Your task to perform on an android device: Add "razer blade" to the cart on bestbuy.com, then select checkout. Image 0: 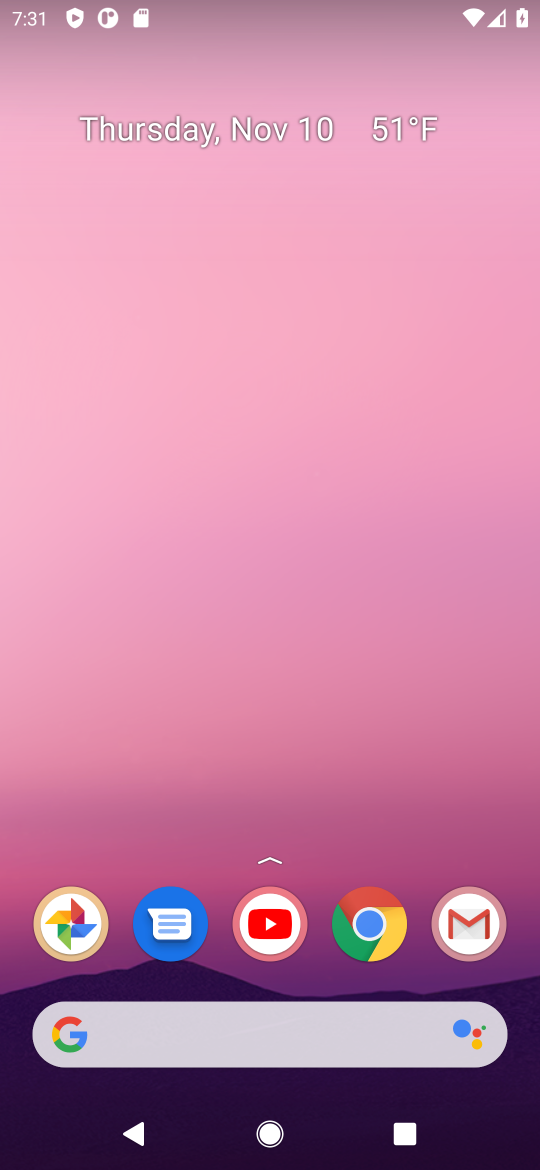
Step 0: click (363, 933)
Your task to perform on an android device: Add "razer blade" to the cart on bestbuy.com, then select checkout. Image 1: 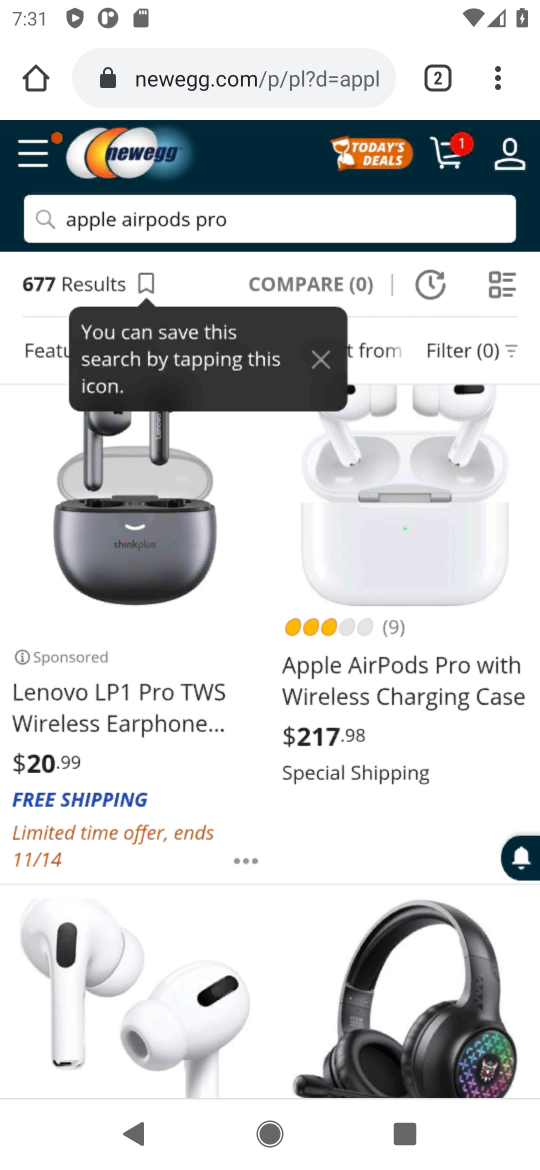
Step 1: click (246, 85)
Your task to perform on an android device: Add "razer blade" to the cart on bestbuy.com, then select checkout. Image 2: 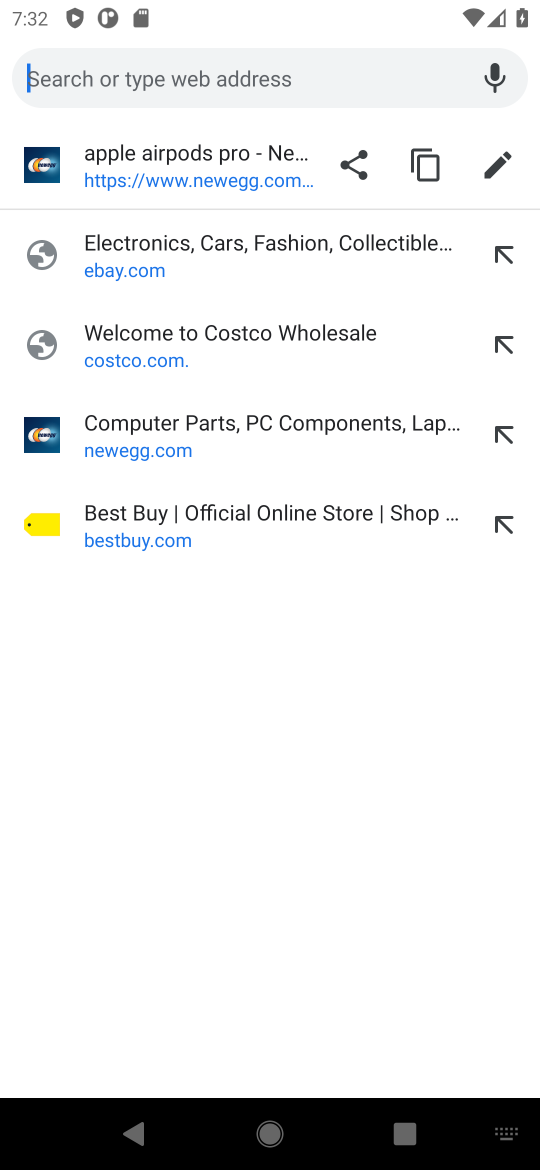
Step 2: click (111, 517)
Your task to perform on an android device: Add "razer blade" to the cart on bestbuy.com, then select checkout. Image 3: 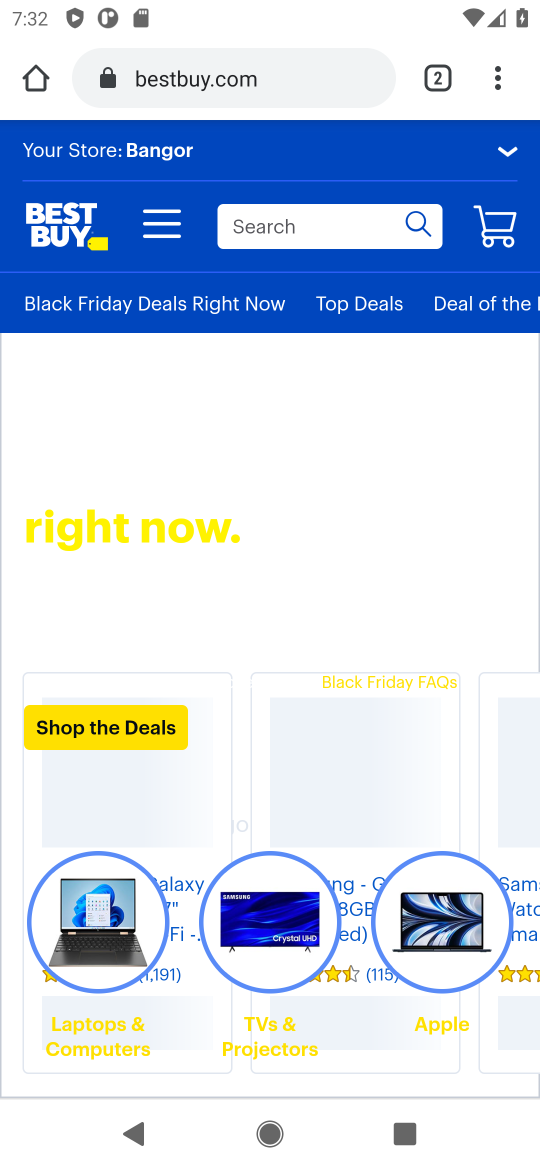
Step 3: click (267, 216)
Your task to perform on an android device: Add "razer blade" to the cart on bestbuy.com, then select checkout. Image 4: 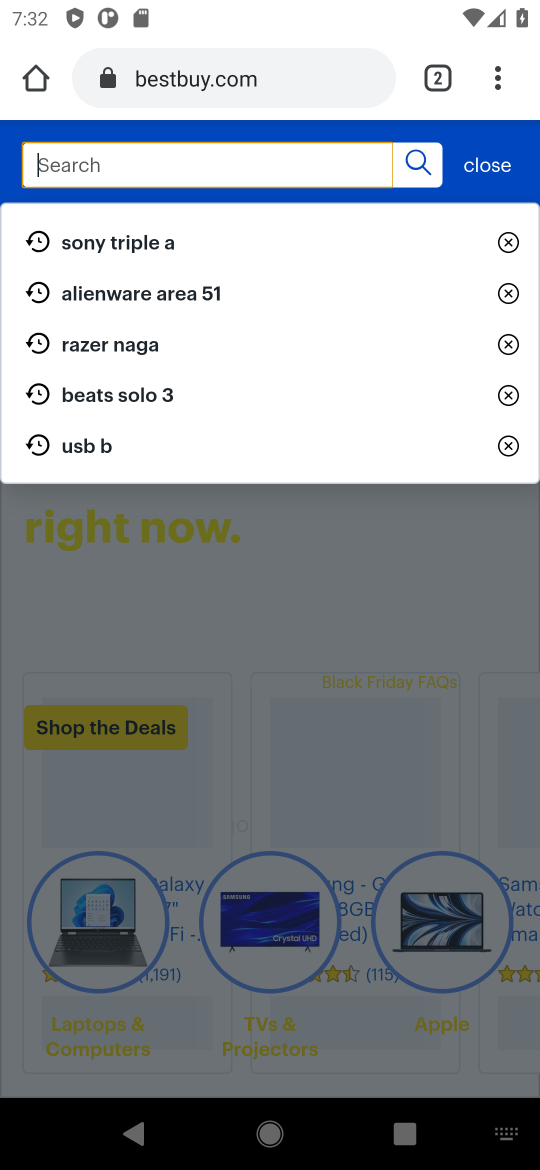
Step 4: type "razer blade"
Your task to perform on an android device: Add "razer blade" to the cart on bestbuy.com, then select checkout. Image 5: 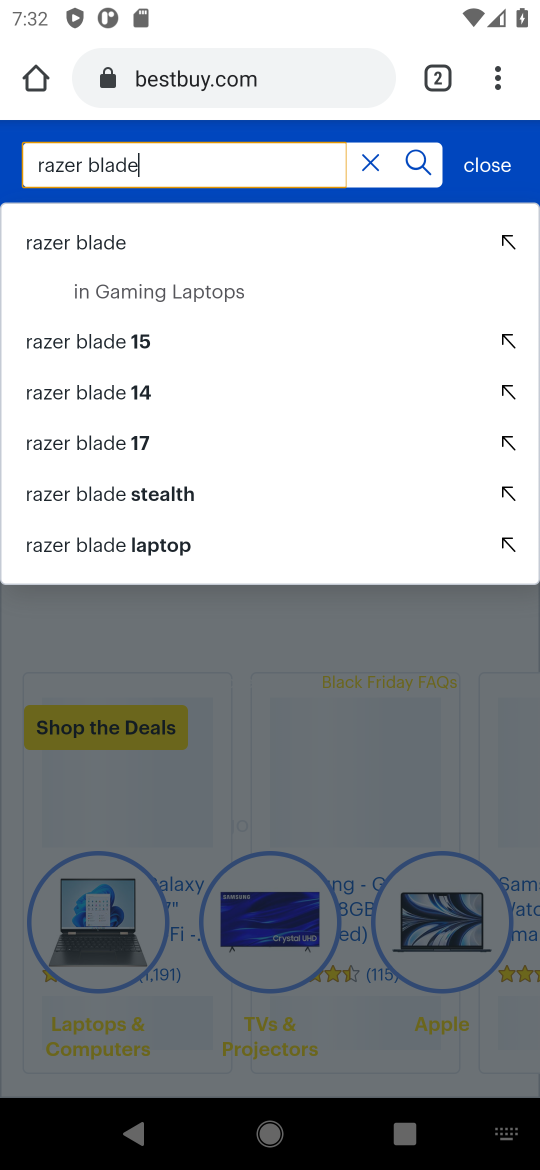
Step 5: click (53, 258)
Your task to perform on an android device: Add "razer blade" to the cart on bestbuy.com, then select checkout. Image 6: 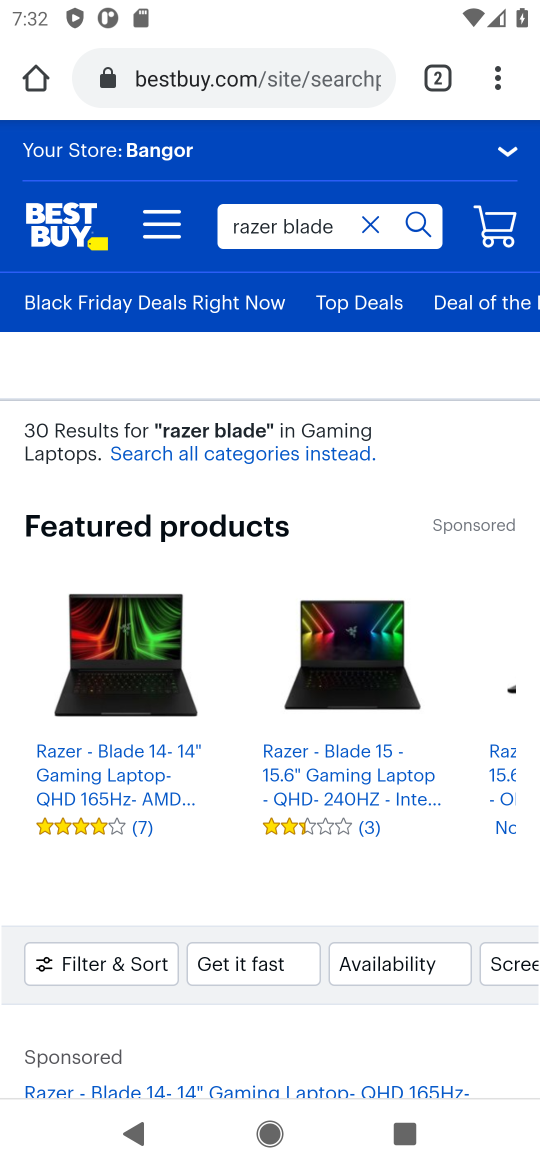
Step 6: drag from (237, 696) to (233, 225)
Your task to perform on an android device: Add "razer blade" to the cart on bestbuy.com, then select checkout. Image 7: 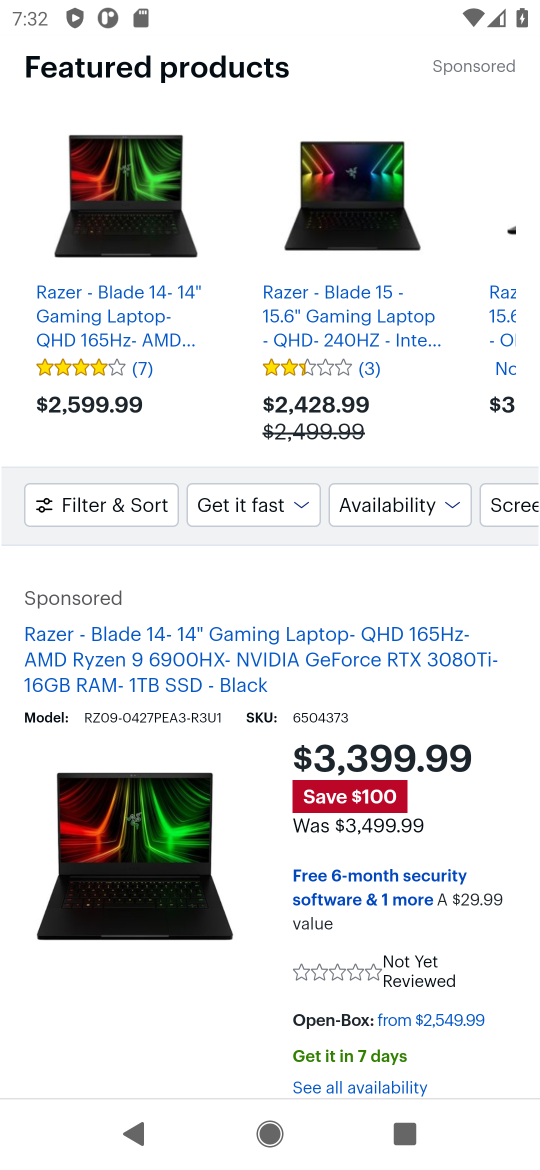
Step 7: drag from (187, 651) to (205, 304)
Your task to perform on an android device: Add "razer blade" to the cart on bestbuy.com, then select checkout. Image 8: 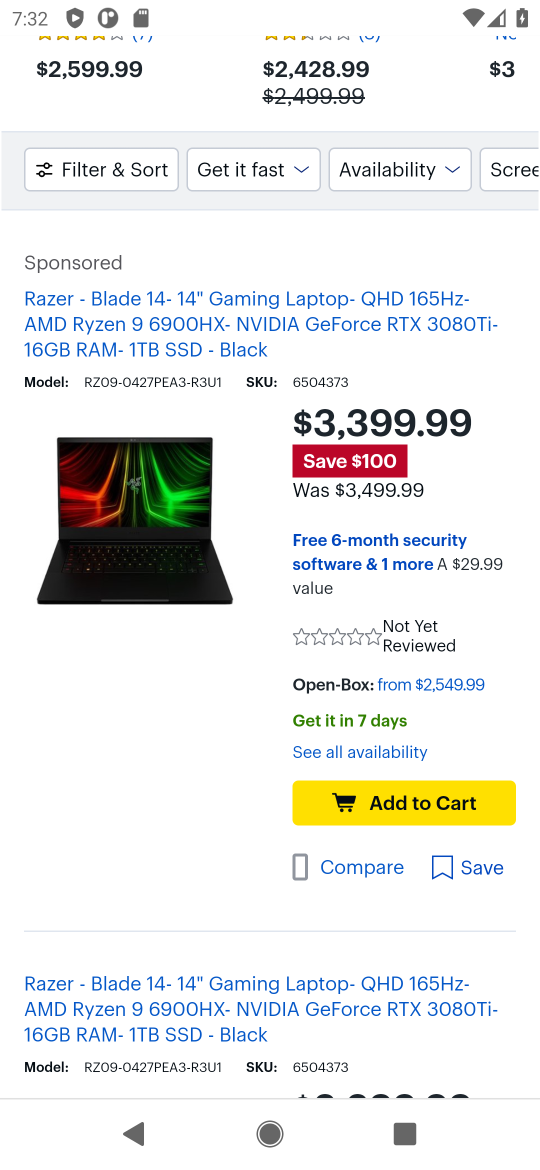
Step 8: click (368, 810)
Your task to perform on an android device: Add "razer blade" to the cart on bestbuy.com, then select checkout. Image 9: 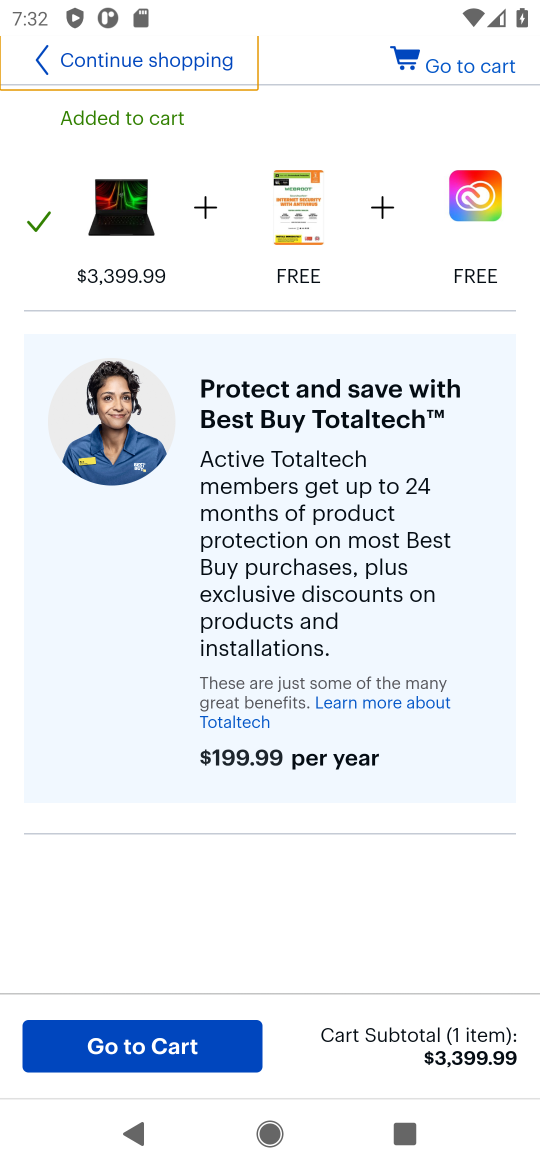
Step 9: click (467, 73)
Your task to perform on an android device: Add "razer blade" to the cart on bestbuy.com, then select checkout. Image 10: 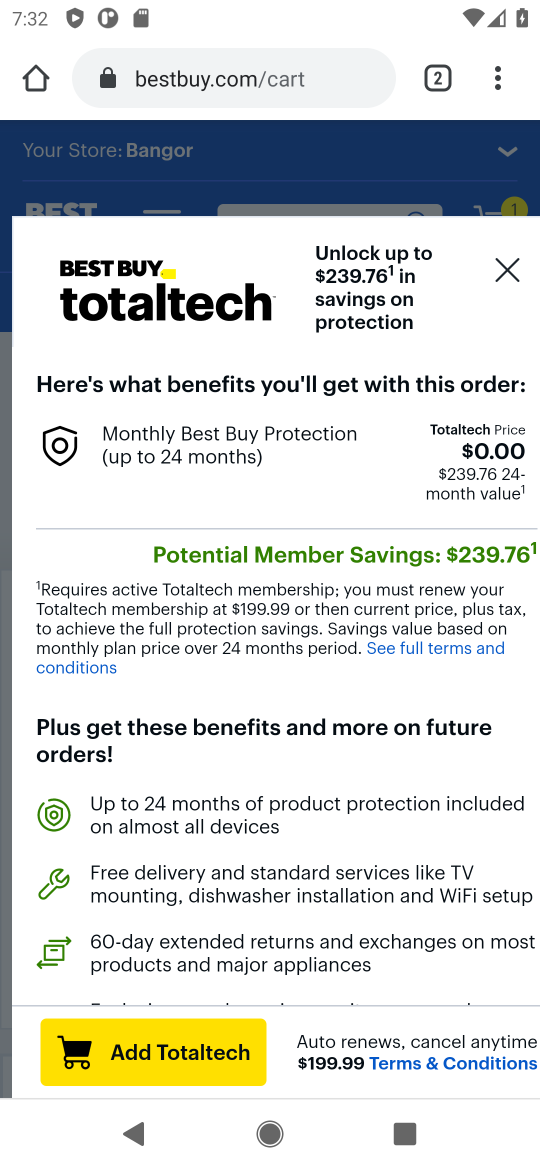
Step 10: click (508, 272)
Your task to perform on an android device: Add "razer blade" to the cart on bestbuy.com, then select checkout. Image 11: 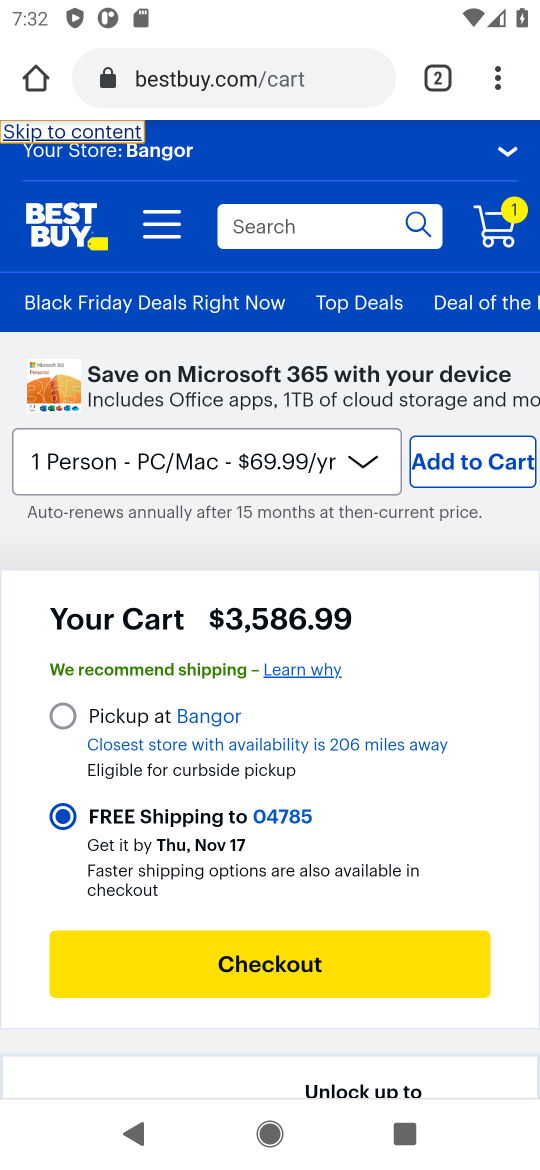
Step 11: click (222, 958)
Your task to perform on an android device: Add "razer blade" to the cart on bestbuy.com, then select checkout. Image 12: 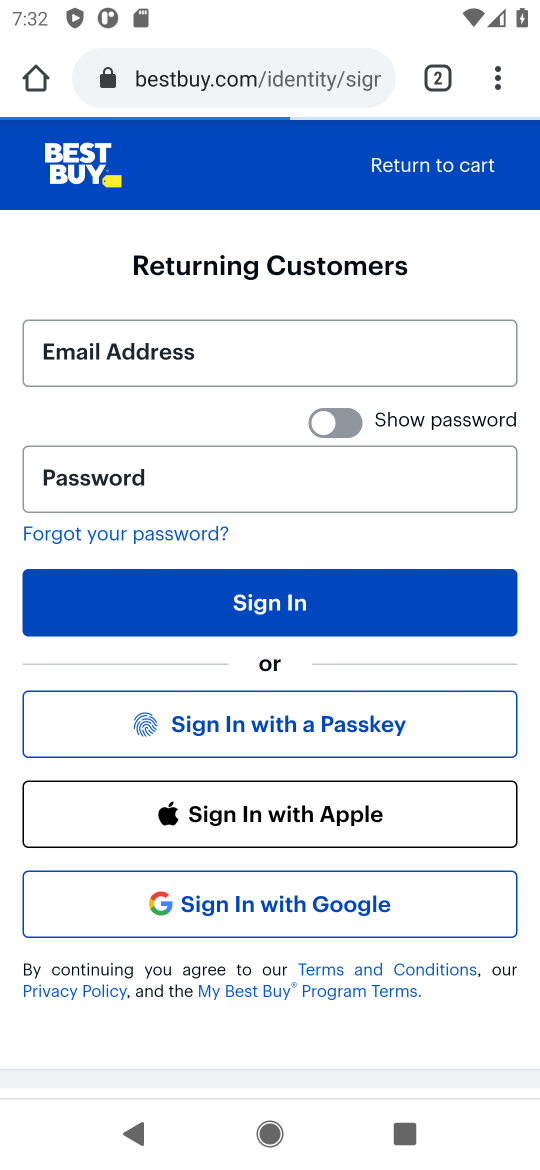
Step 12: task complete